Your task to perform on an android device: Open privacy settings Image 0: 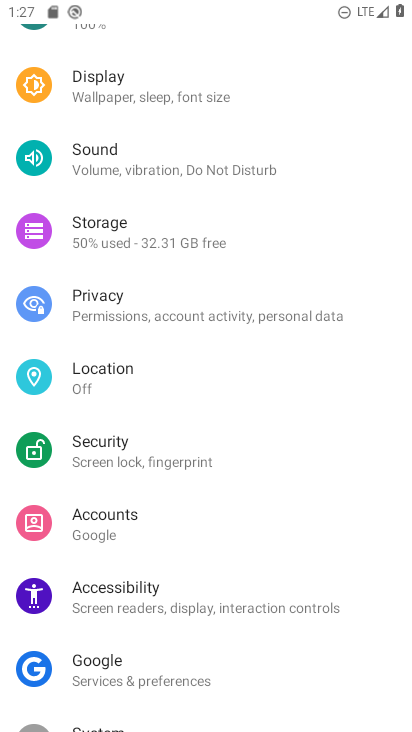
Step 0: drag from (216, 611) to (231, 238)
Your task to perform on an android device: Open privacy settings Image 1: 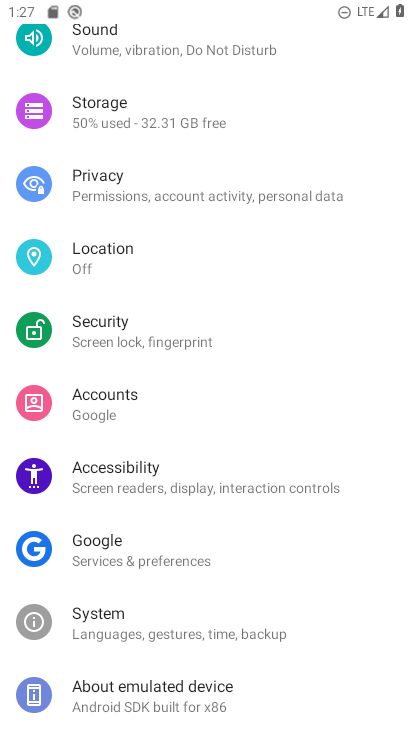
Step 1: click (111, 197)
Your task to perform on an android device: Open privacy settings Image 2: 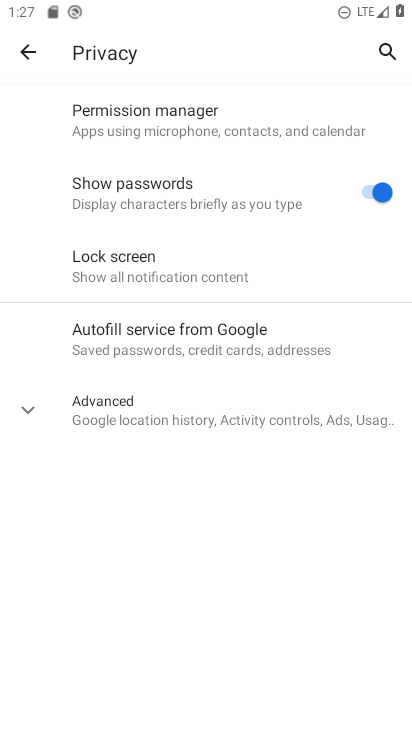
Step 2: task complete